Your task to perform on an android device: uninstall "Messenger Lite" Image 0: 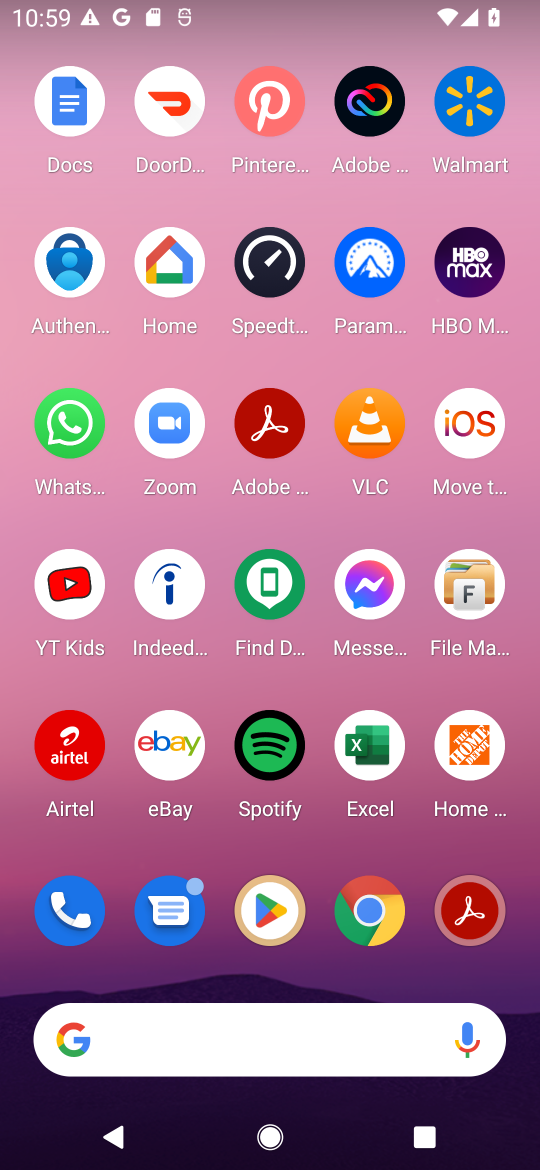
Step 0: click (252, 935)
Your task to perform on an android device: uninstall "Messenger Lite" Image 1: 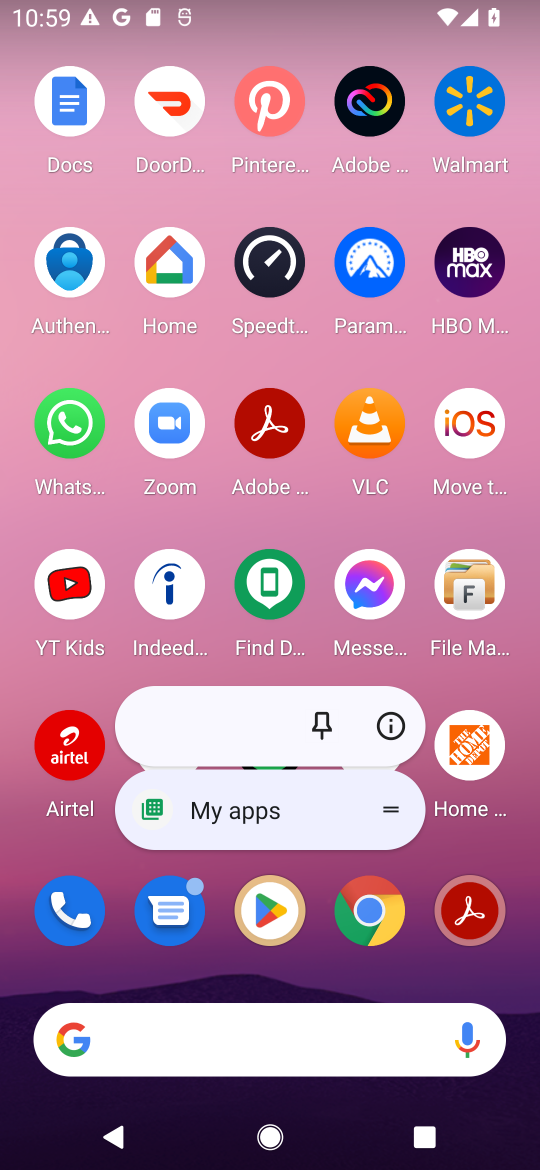
Step 1: click (270, 910)
Your task to perform on an android device: uninstall "Messenger Lite" Image 2: 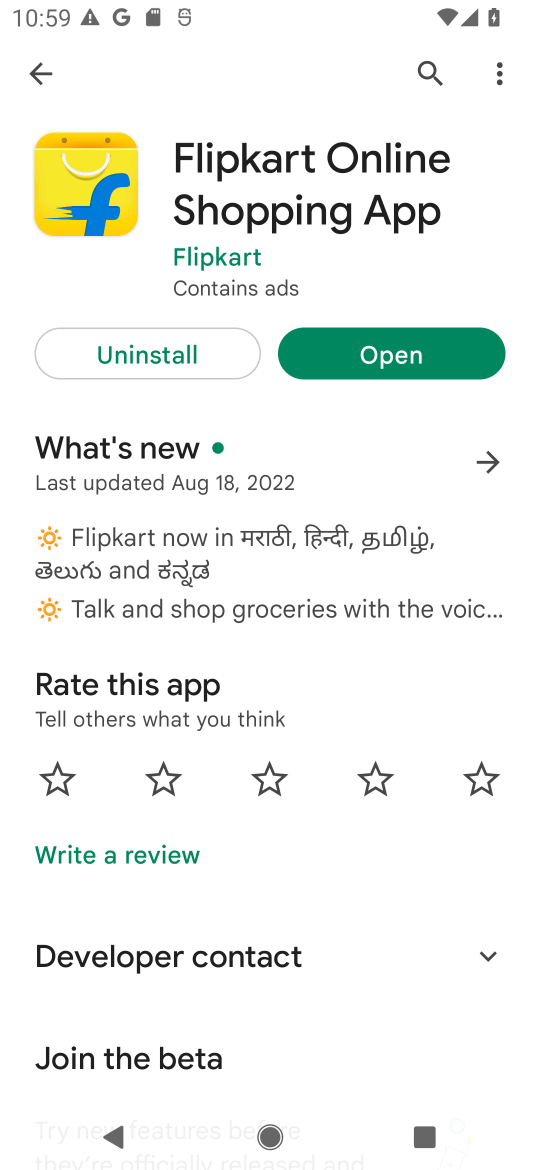
Step 2: click (435, 77)
Your task to perform on an android device: uninstall "Messenger Lite" Image 3: 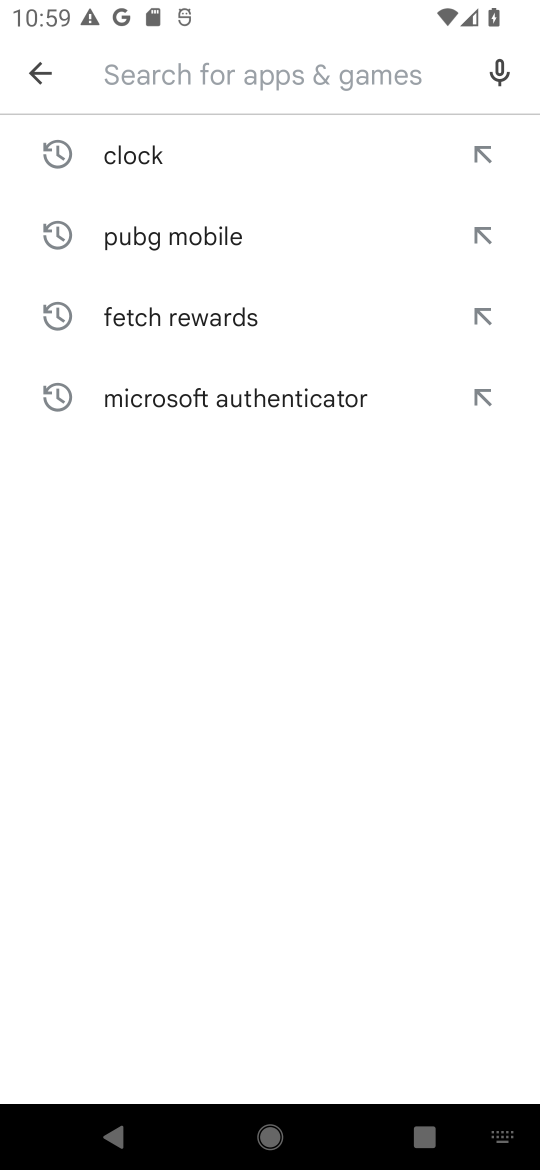
Step 3: type "Messenger Lite"
Your task to perform on an android device: uninstall "Messenger Lite" Image 4: 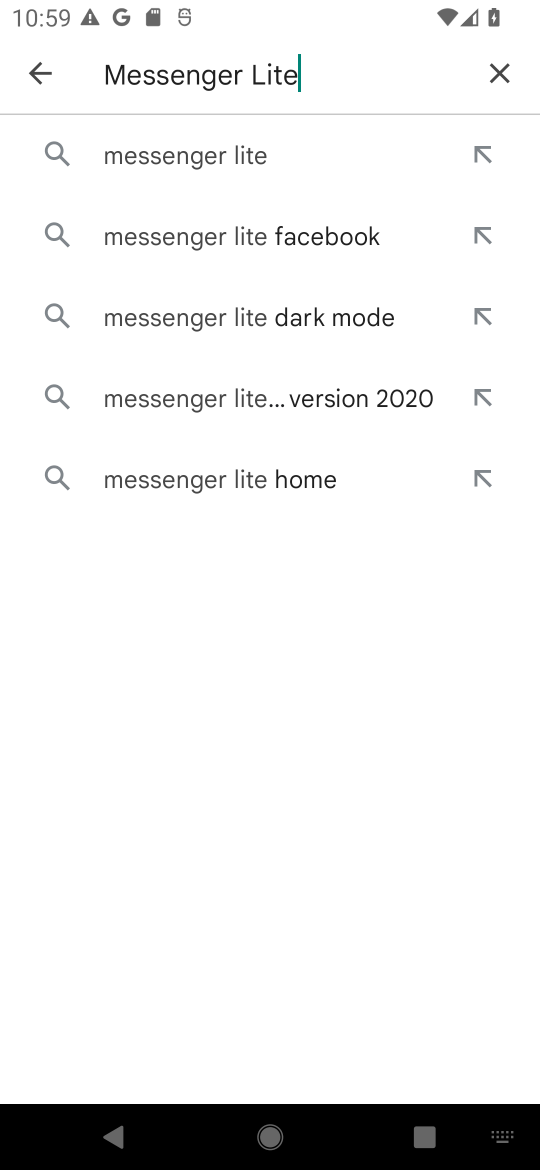
Step 4: click (231, 173)
Your task to perform on an android device: uninstall "Messenger Lite" Image 5: 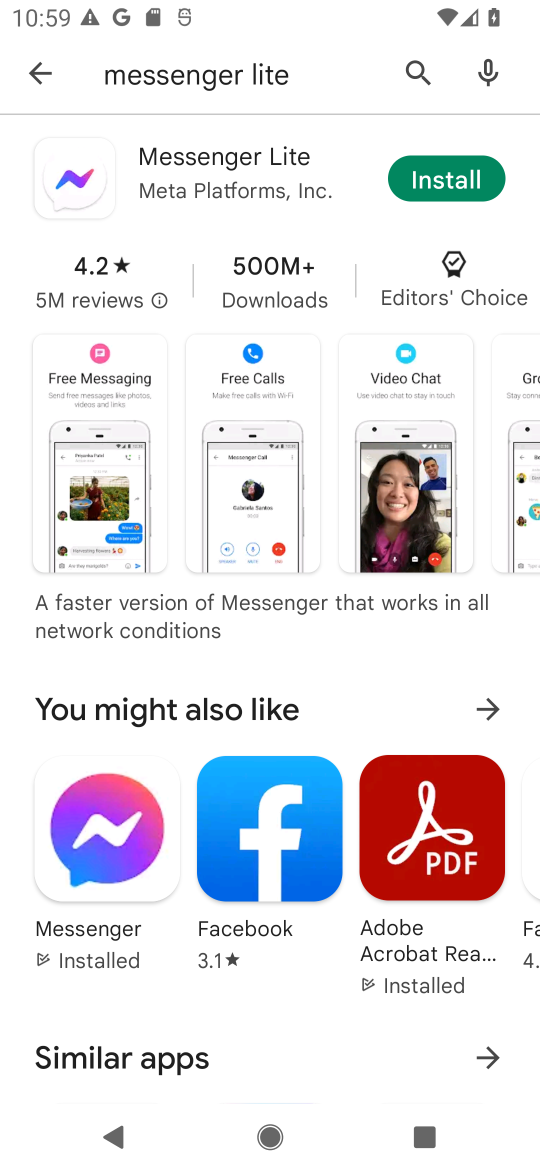
Step 5: task complete